Your task to perform on an android device: What is the news today? Image 0: 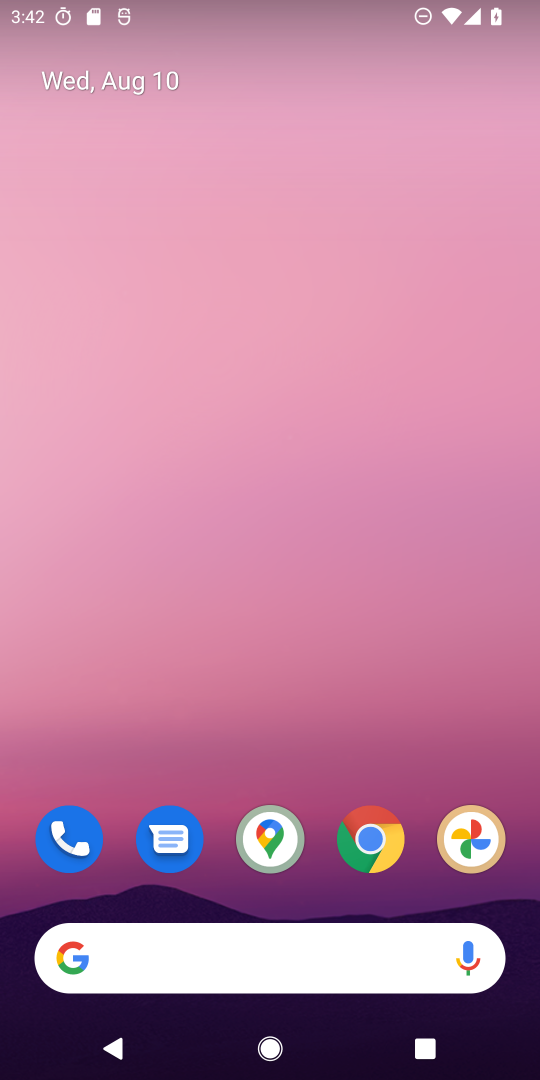
Step 0: click (198, 948)
Your task to perform on an android device: What is the news today? Image 1: 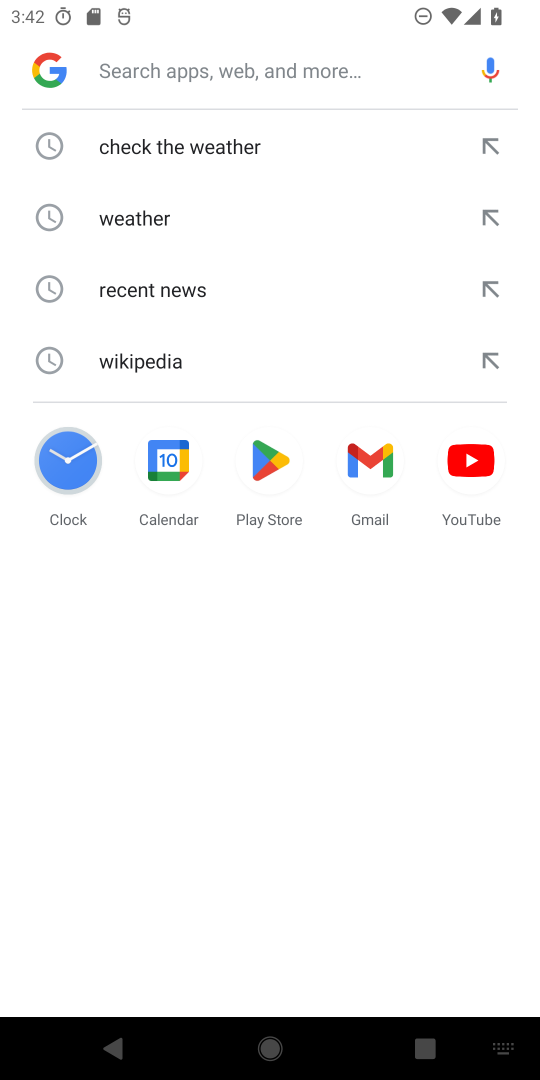
Step 1: type "What is the news today?"
Your task to perform on an android device: What is the news today? Image 2: 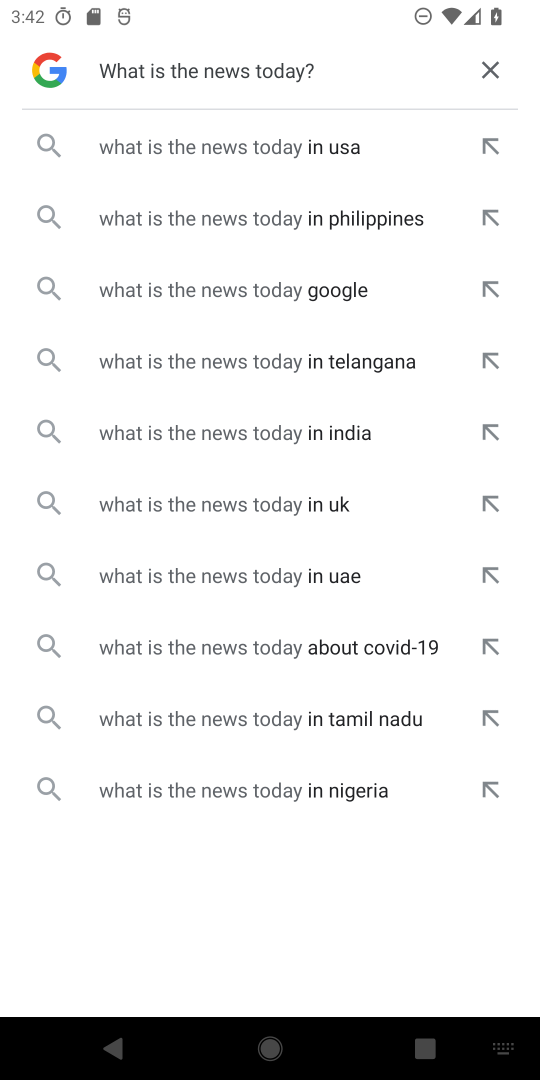
Step 2: type ""
Your task to perform on an android device: What is the news today? Image 3: 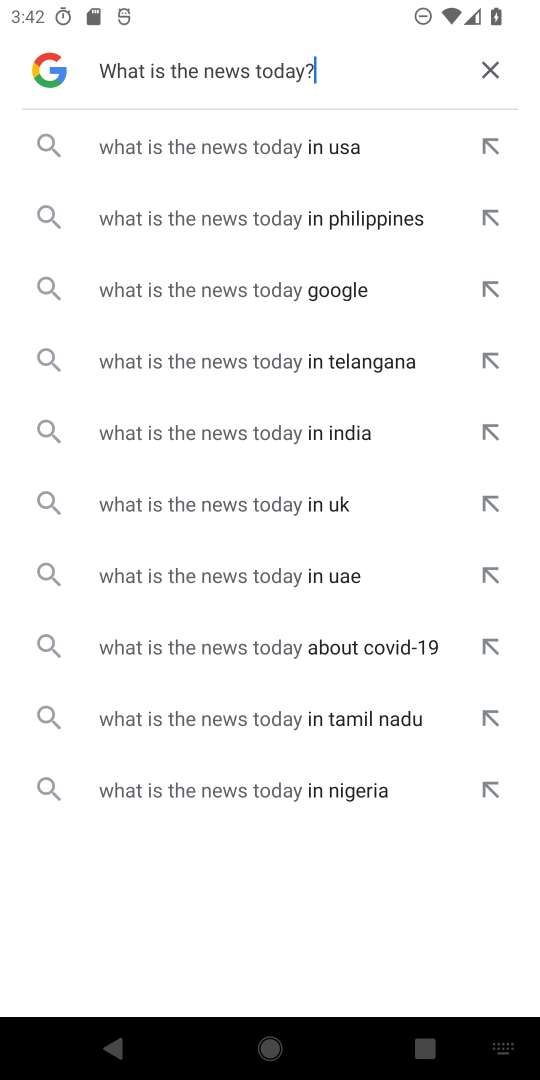
Step 3: type ""
Your task to perform on an android device: What is the news today? Image 4: 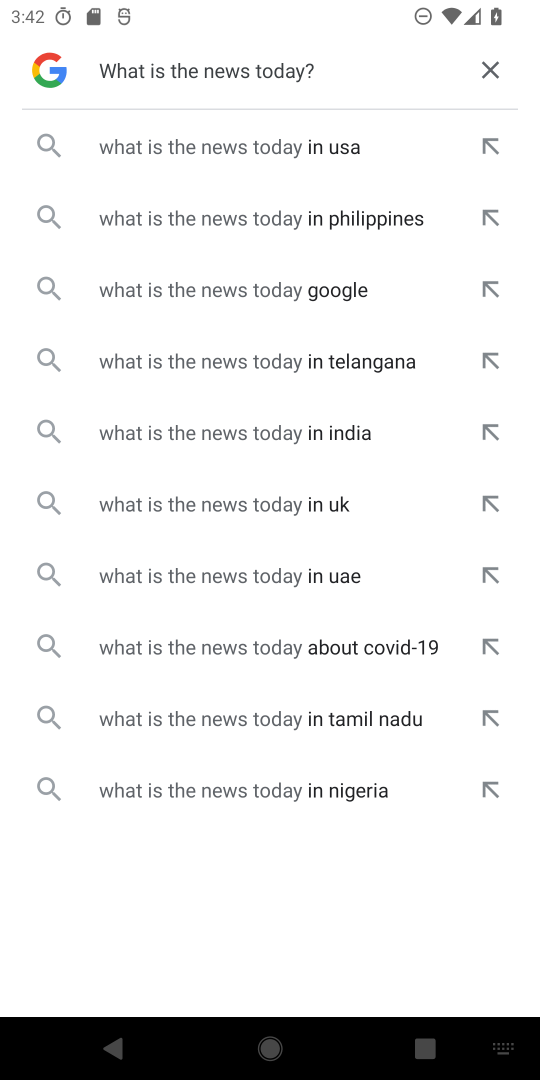
Step 4: task complete